Your task to perform on an android device: change the clock display to analog Image 0: 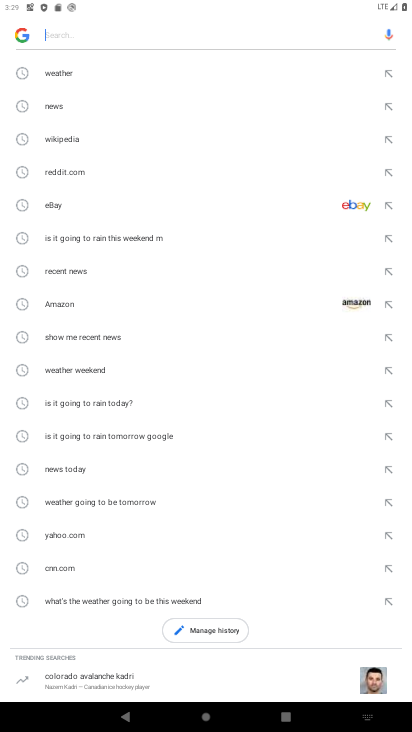
Step 0: press home button
Your task to perform on an android device: change the clock display to analog Image 1: 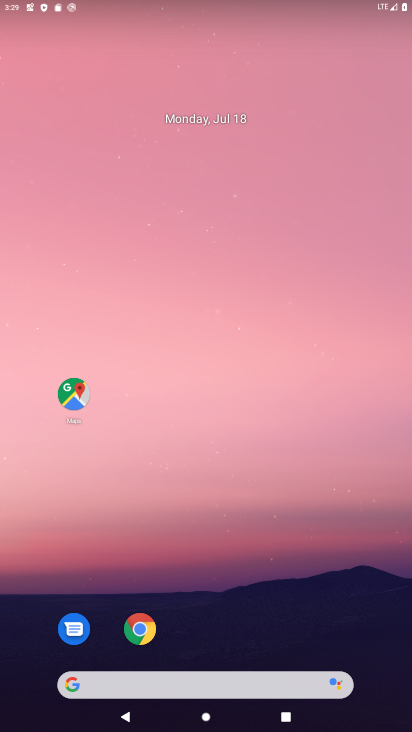
Step 1: drag from (197, 627) to (231, 192)
Your task to perform on an android device: change the clock display to analog Image 2: 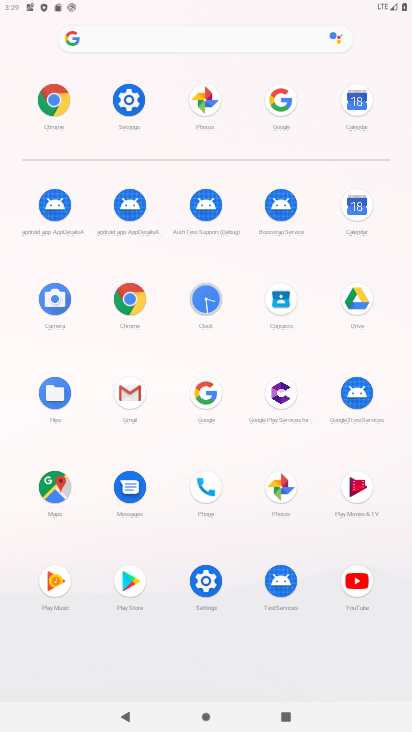
Step 2: click (218, 317)
Your task to perform on an android device: change the clock display to analog Image 3: 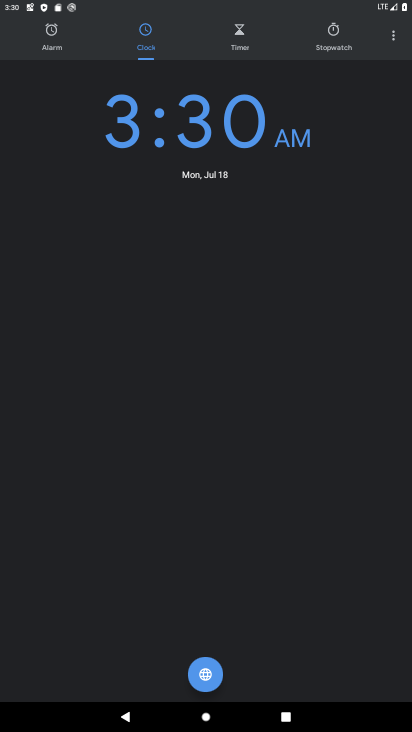
Step 3: click (393, 40)
Your task to perform on an android device: change the clock display to analog Image 4: 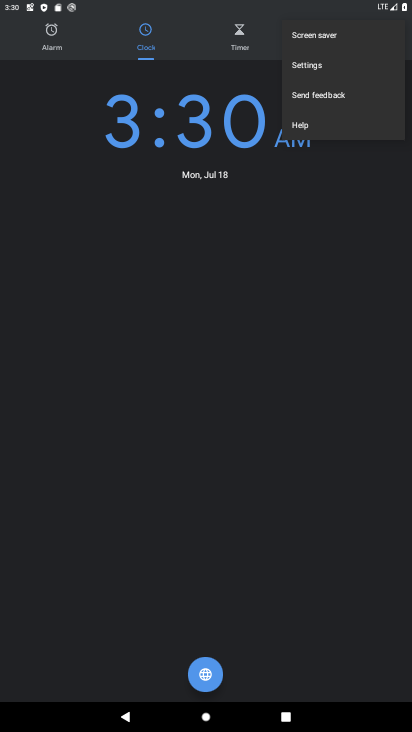
Step 4: click (338, 66)
Your task to perform on an android device: change the clock display to analog Image 5: 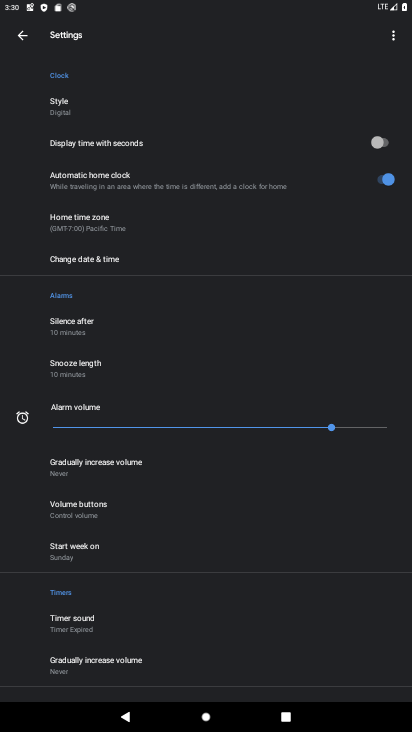
Step 5: click (71, 112)
Your task to perform on an android device: change the clock display to analog Image 6: 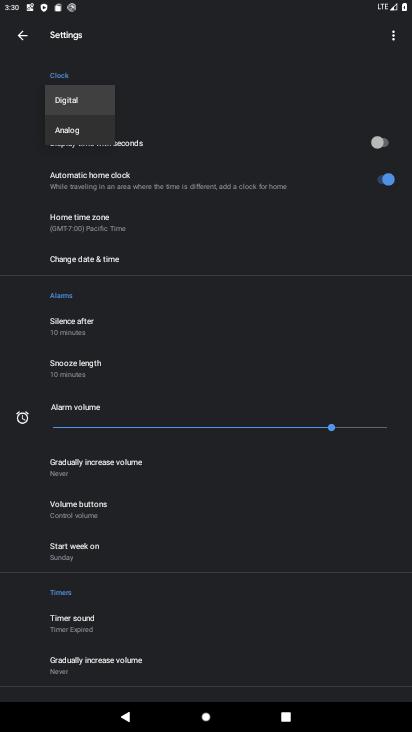
Step 6: click (96, 129)
Your task to perform on an android device: change the clock display to analog Image 7: 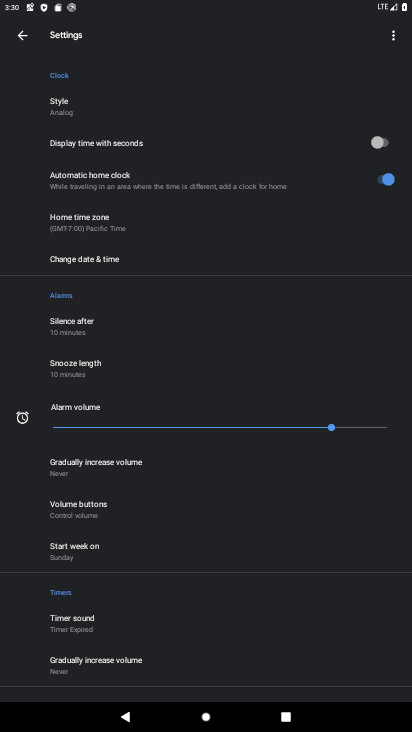
Step 7: task complete